Your task to perform on an android device: Look up the top rated 18v miter saw on Home Depot. Image 0: 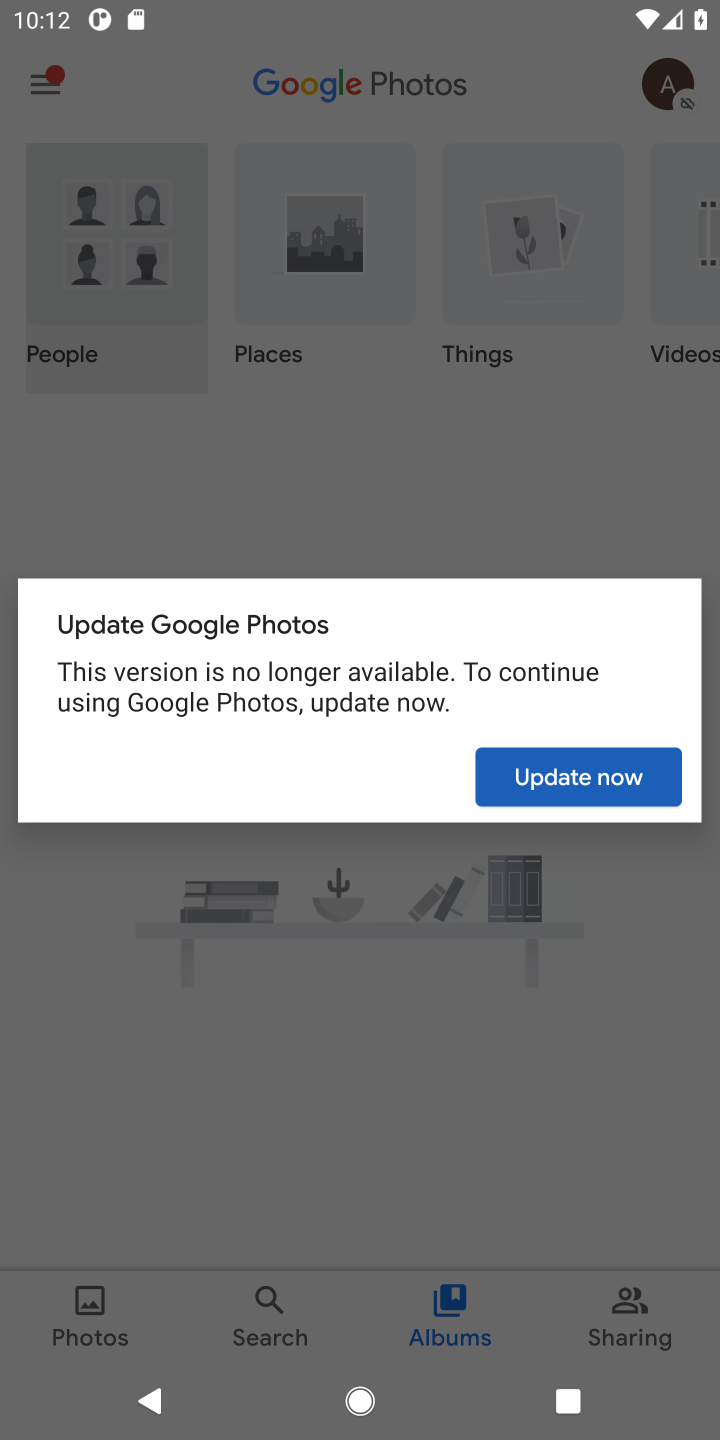
Step 0: press home button
Your task to perform on an android device: Look up the top rated 18v miter saw on Home Depot. Image 1: 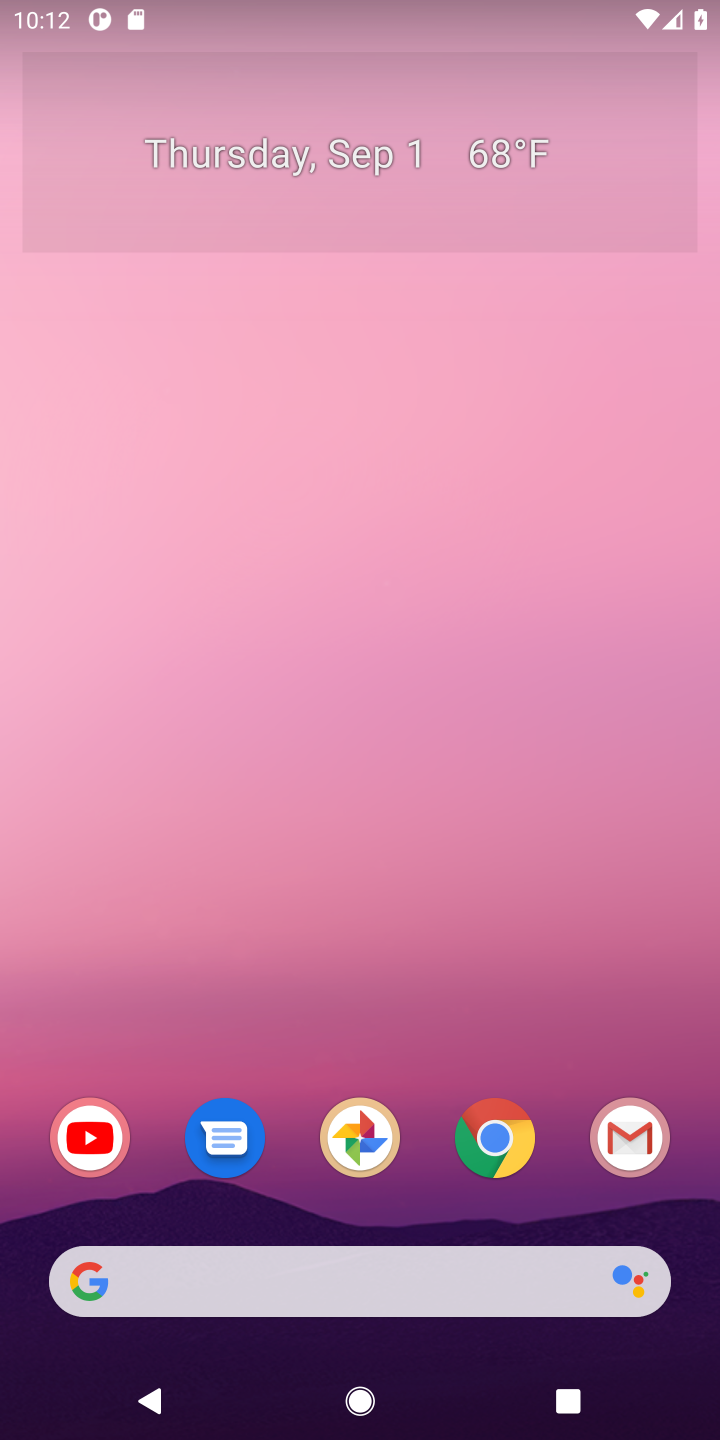
Step 1: click (308, 1268)
Your task to perform on an android device: Look up the top rated 18v miter saw on Home Depot. Image 2: 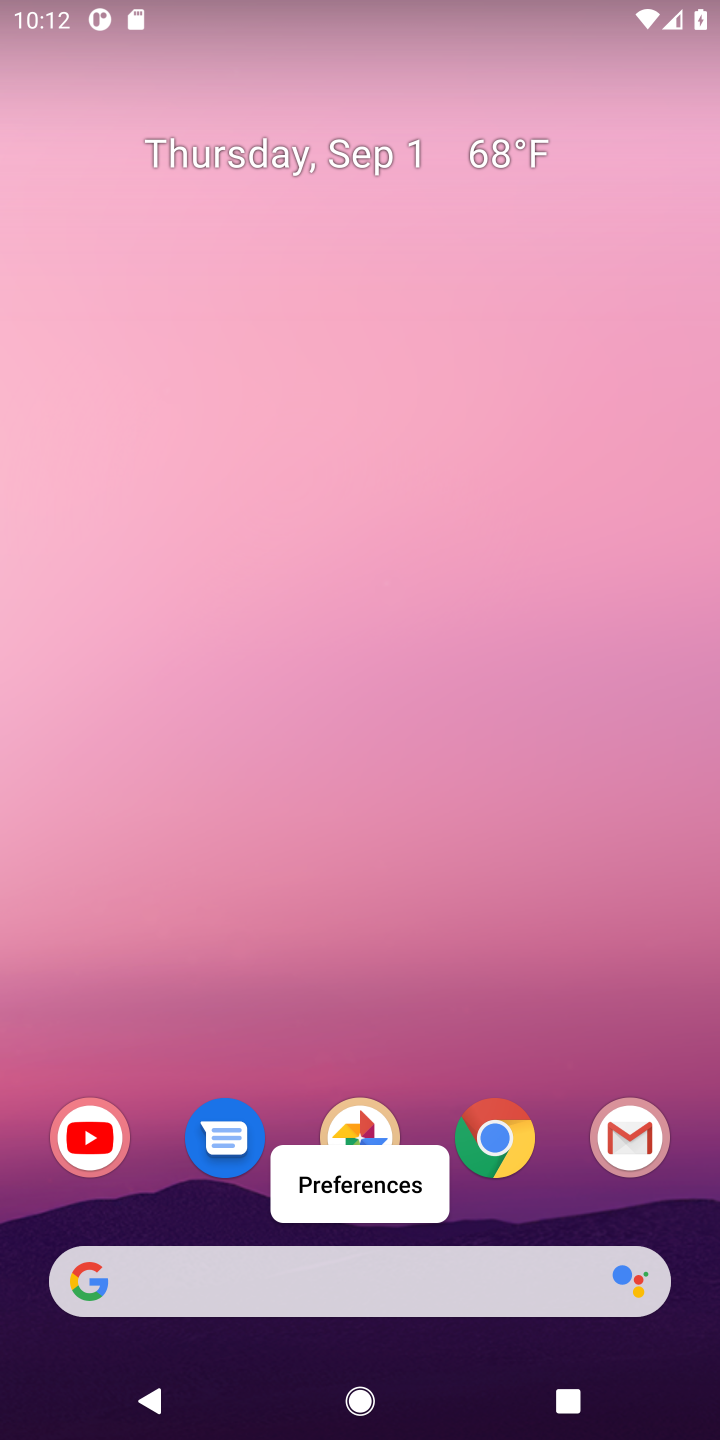
Step 2: click (279, 1282)
Your task to perform on an android device: Look up the top rated 18v miter saw on Home Depot. Image 3: 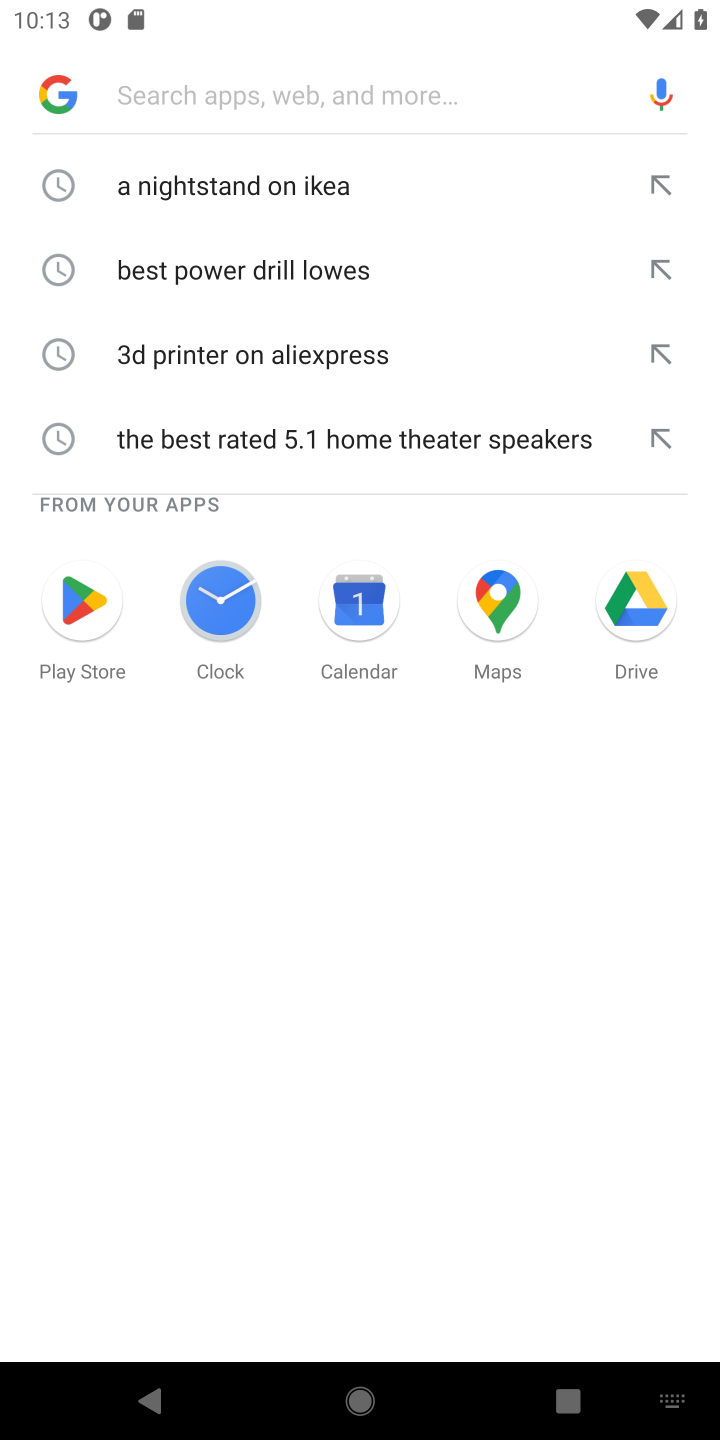
Step 3: type "the top rated 18v miter saw on Home Depot."
Your task to perform on an android device: Look up the top rated 18v miter saw on Home Depot. Image 4: 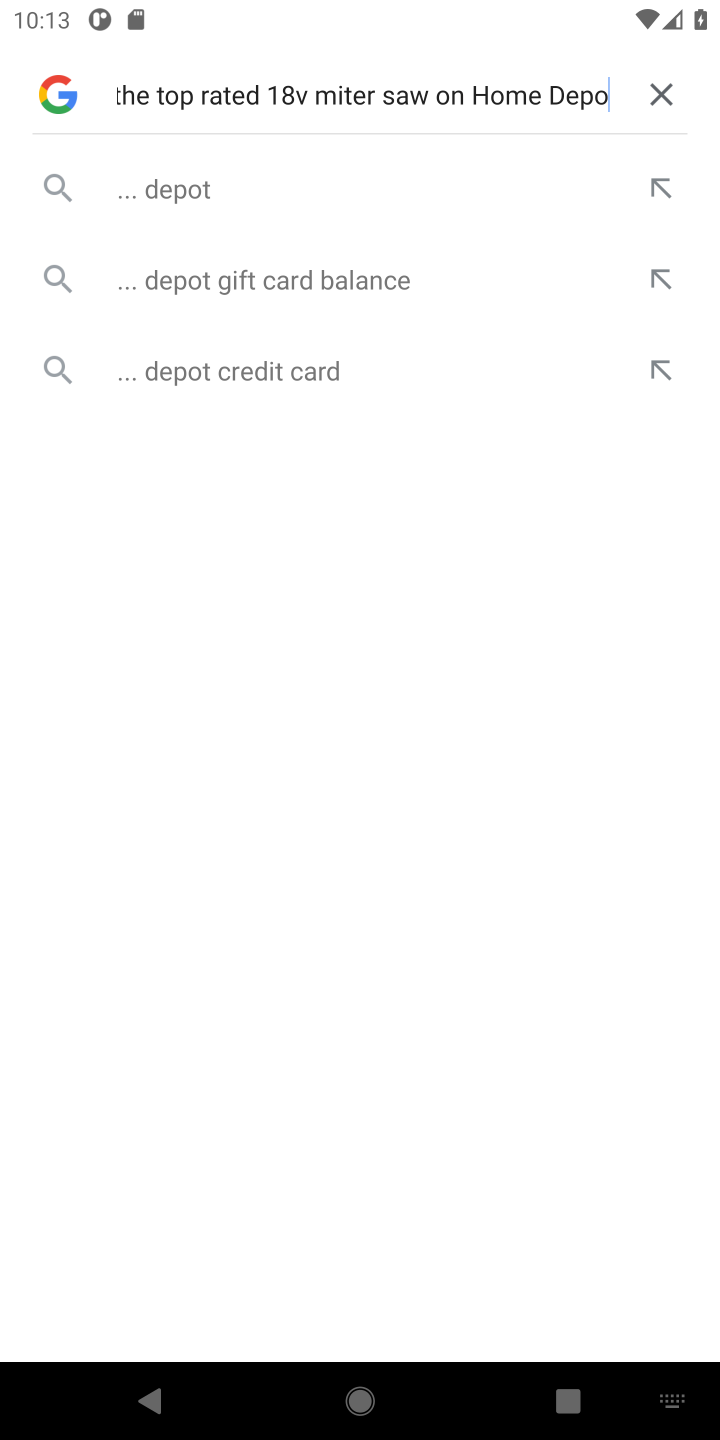
Step 4: click (173, 201)
Your task to perform on an android device: Look up the top rated 18v miter saw on Home Depot. Image 5: 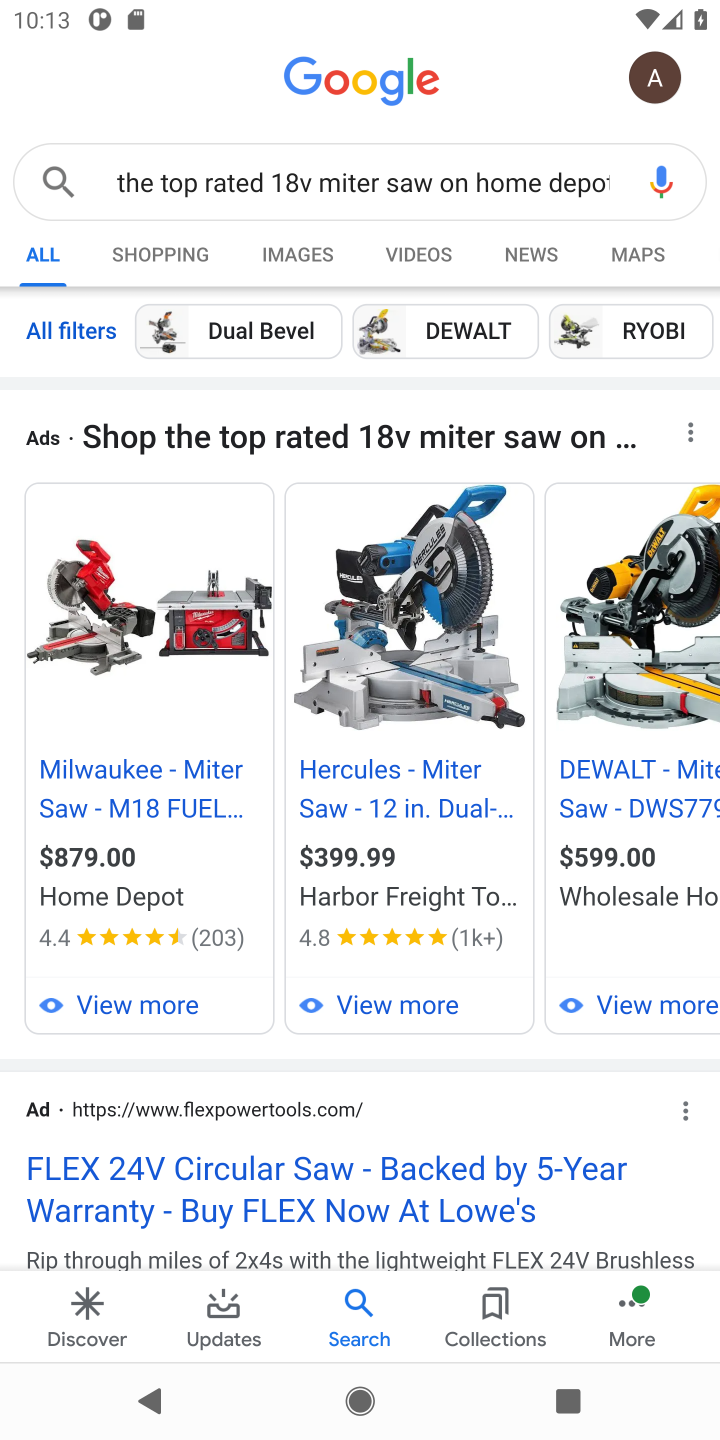
Step 5: task complete